Your task to perform on an android device: Open Youtube and go to the subscriptions tab Image 0: 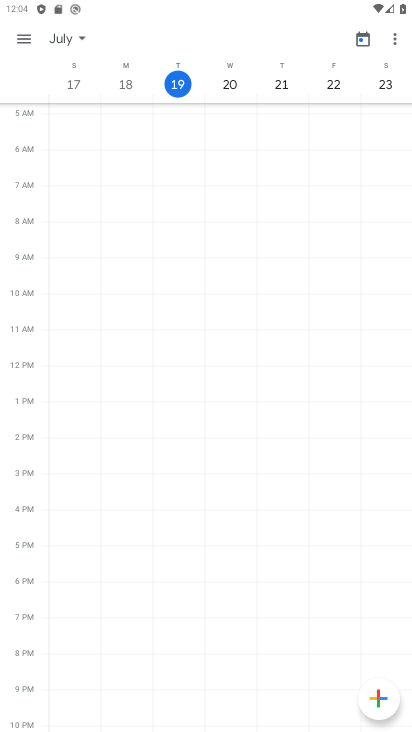
Step 0: press home button
Your task to perform on an android device: Open Youtube and go to the subscriptions tab Image 1: 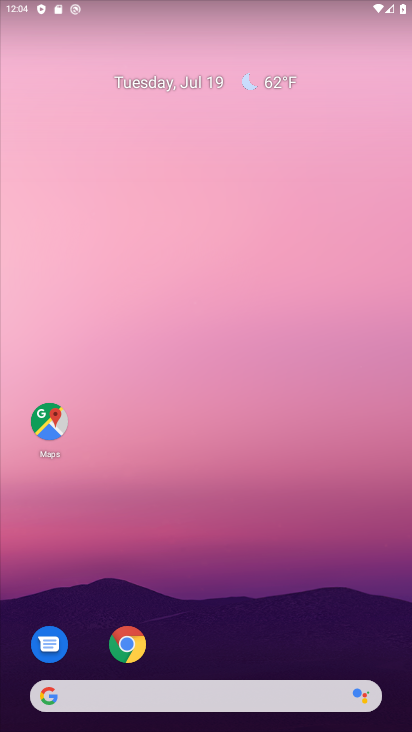
Step 1: click (287, 125)
Your task to perform on an android device: Open Youtube and go to the subscriptions tab Image 2: 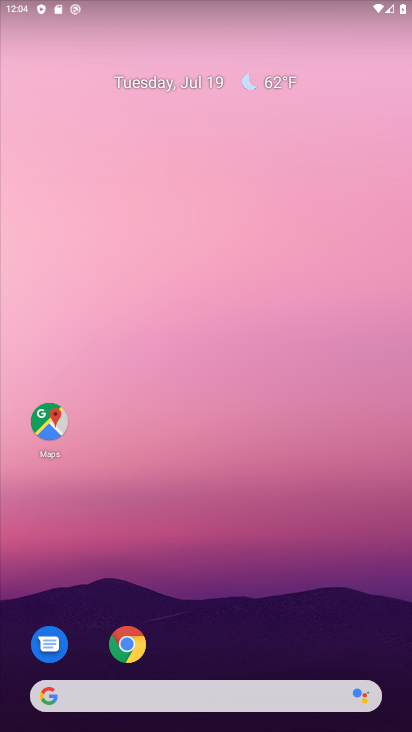
Step 2: drag from (239, 593) to (242, 202)
Your task to perform on an android device: Open Youtube and go to the subscriptions tab Image 3: 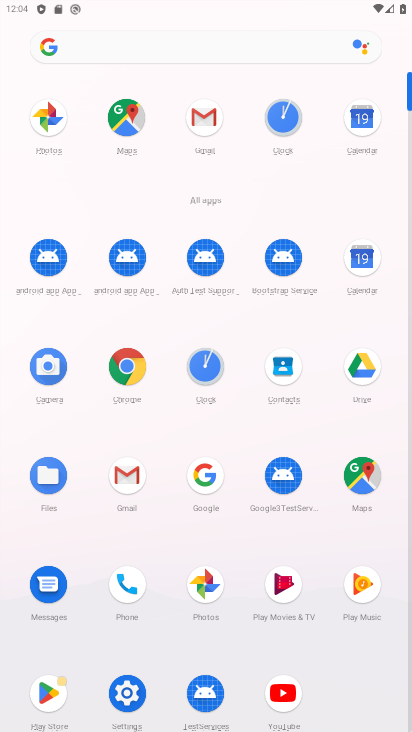
Step 3: click (277, 682)
Your task to perform on an android device: Open Youtube and go to the subscriptions tab Image 4: 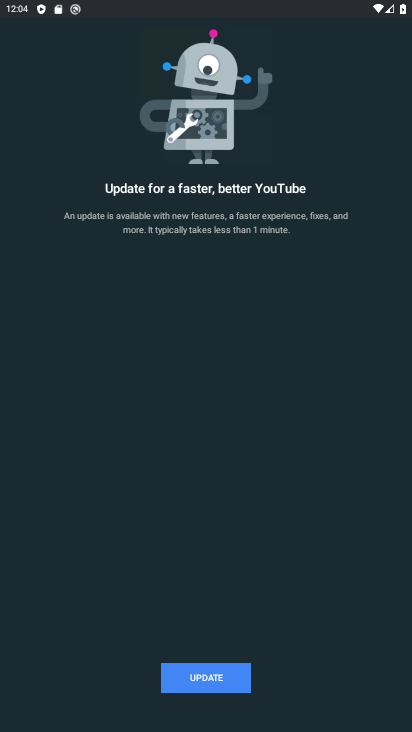
Step 4: click (234, 682)
Your task to perform on an android device: Open Youtube and go to the subscriptions tab Image 5: 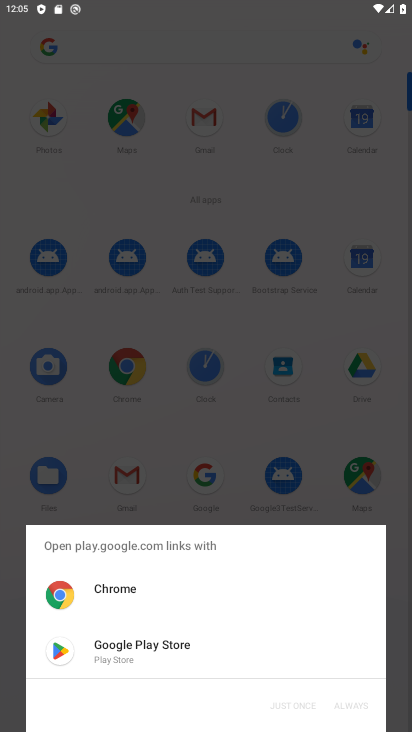
Step 5: click (122, 628)
Your task to perform on an android device: Open Youtube and go to the subscriptions tab Image 6: 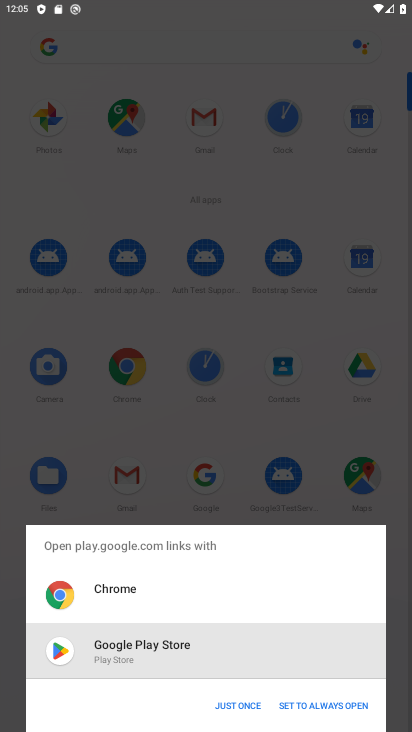
Step 6: click (150, 644)
Your task to perform on an android device: Open Youtube and go to the subscriptions tab Image 7: 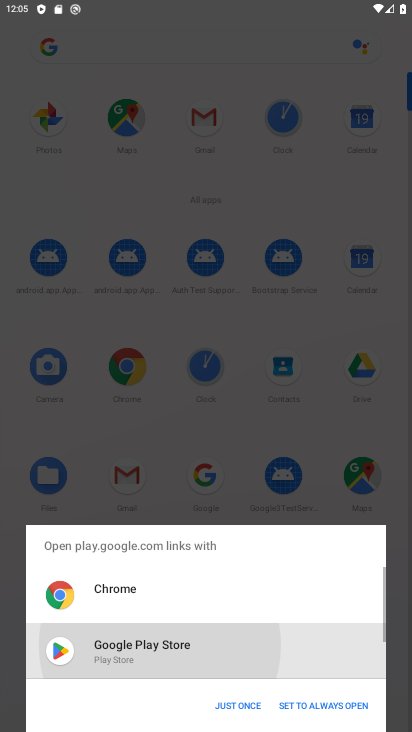
Step 7: click (228, 705)
Your task to perform on an android device: Open Youtube and go to the subscriptions tab Image 8: 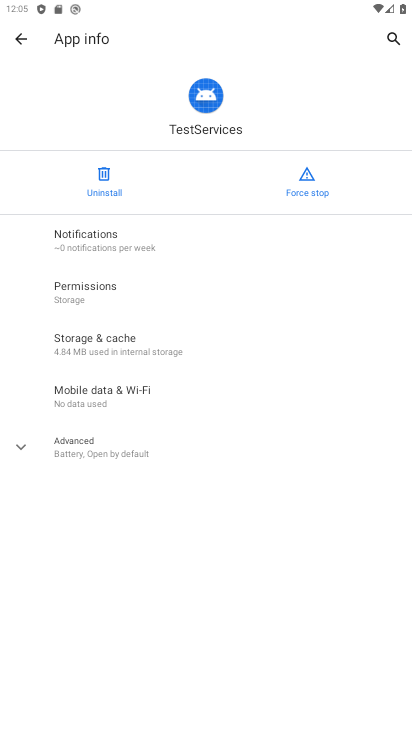
Step 8: click (24, 29)
Your task to perform on an android device: Open Youtube and go to the subscriptions tab Image 9: 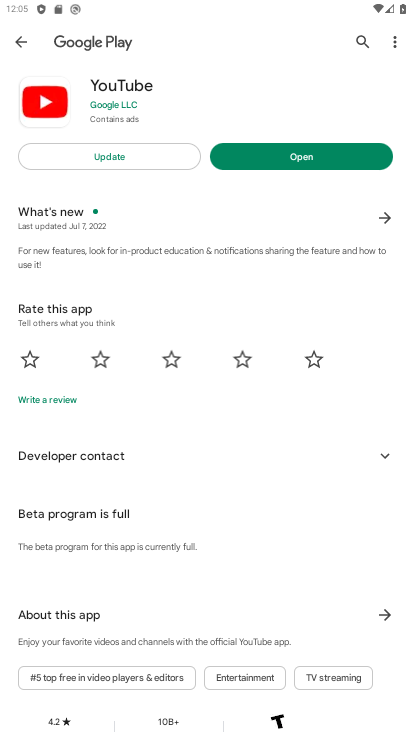
Step 9: click (140, 153)
Your task to perform on an android device: Open Youtube and go to the subscriptions tab Image 10: 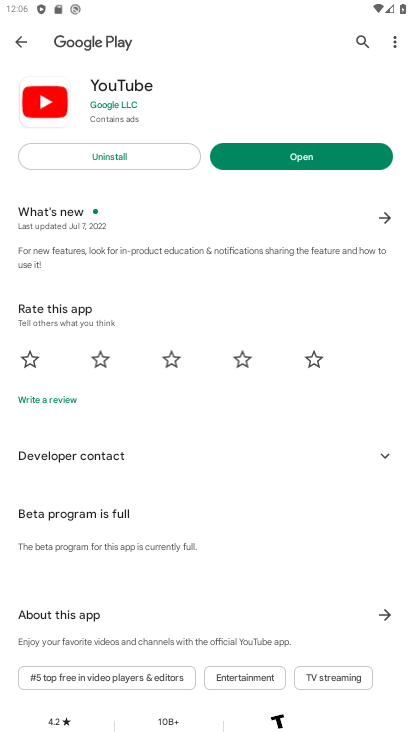
Step 10: click (248, 152)
Your task to perform on an android device: Open Youtube and go to the subscriptions tab Image 11: 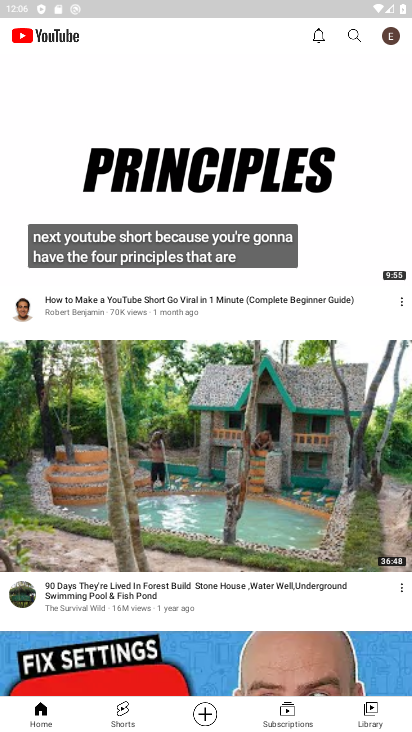
Step 11: click (292, 716)
Your task to perform on an android device: Open Youtube and go to the subscriptions tab Image 12: 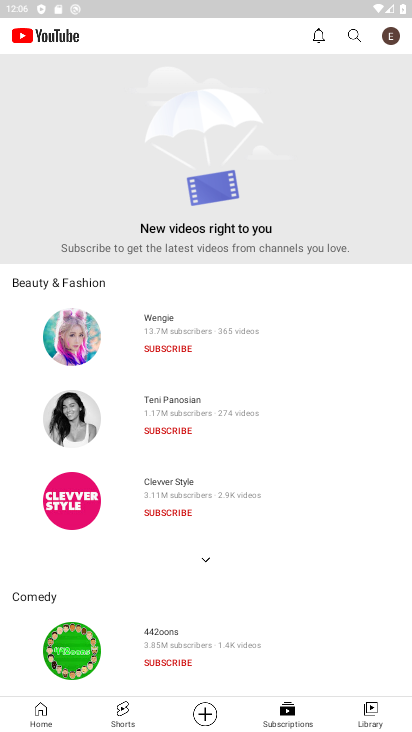
Step 12: task complete